Your task to perform on an android device: toggle notification dots Image 0: 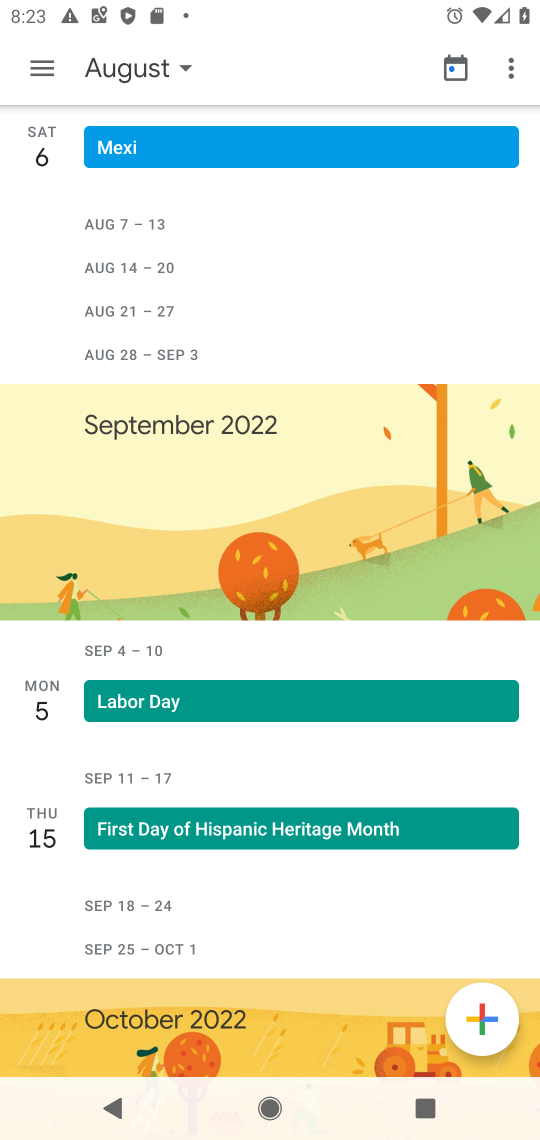
Step 0: press home button
Your task to perform on an android device: toggle notification dots Image 1: 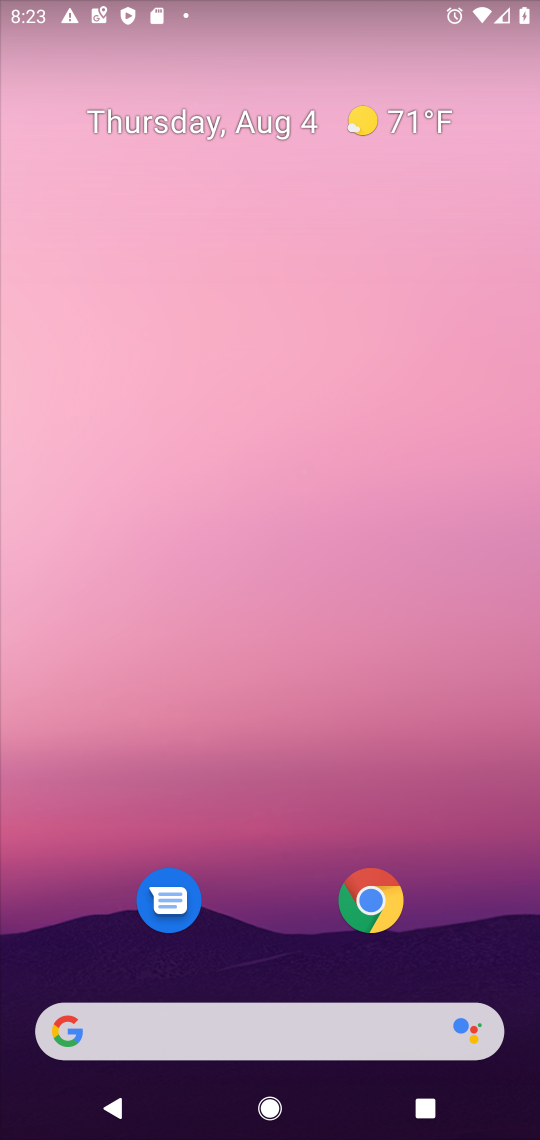
Step 1: drag from (257, 997) to (205, 168)
Your task to perform on an android device: toggle notification dots Image 2: 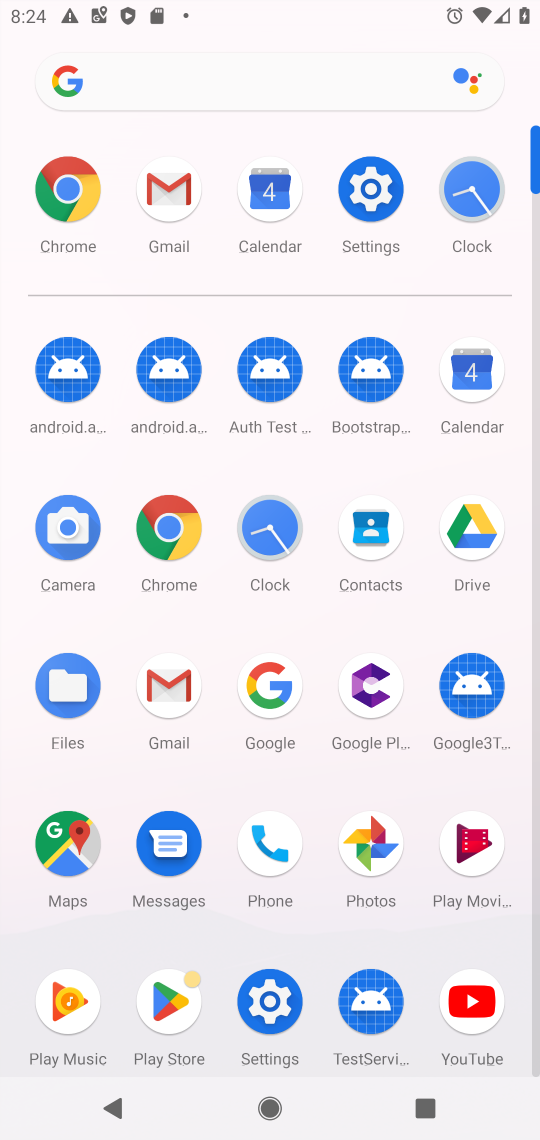
Step 2: click (369, 190)
Your task to perform on an android device: toggle notification dots Image 3: 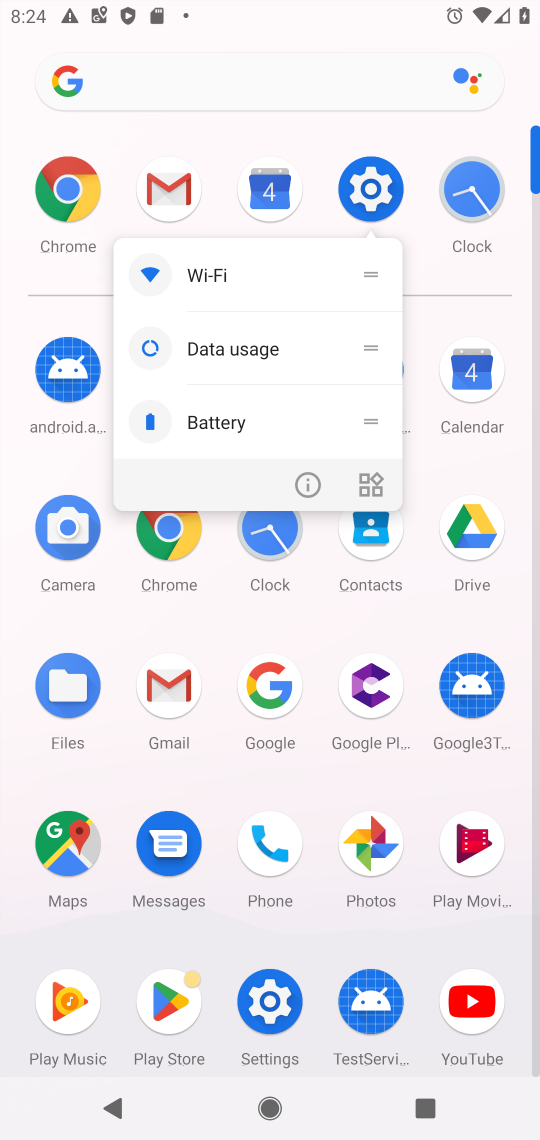
Step 3: click (369, 190)
Your task to perform on an android device: toggle notification dots Image 4: 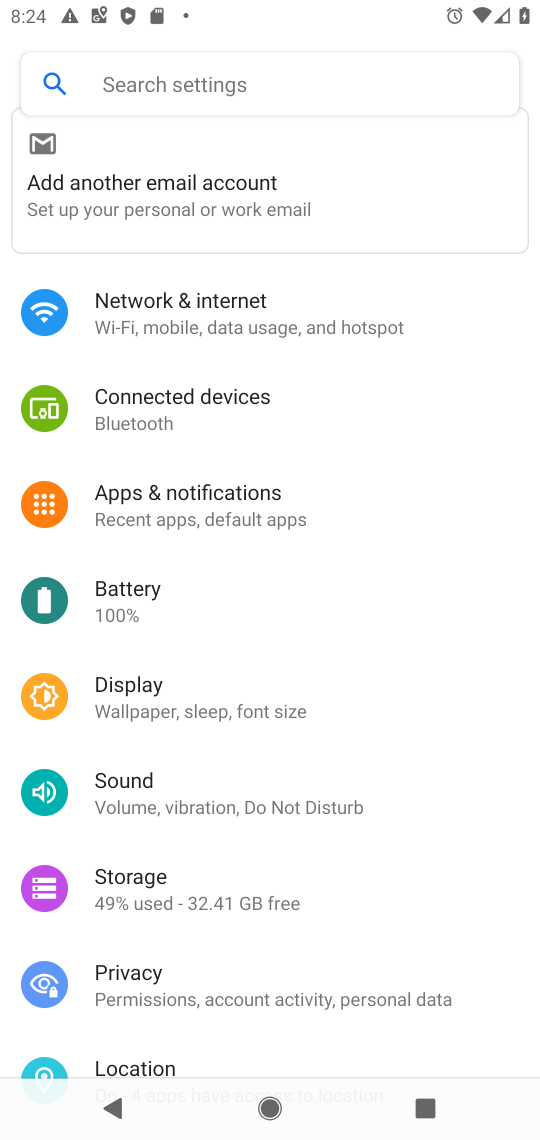
Step 4: click (152, 515)
Your task to perform on an android device: toggle notification dots Image 5: 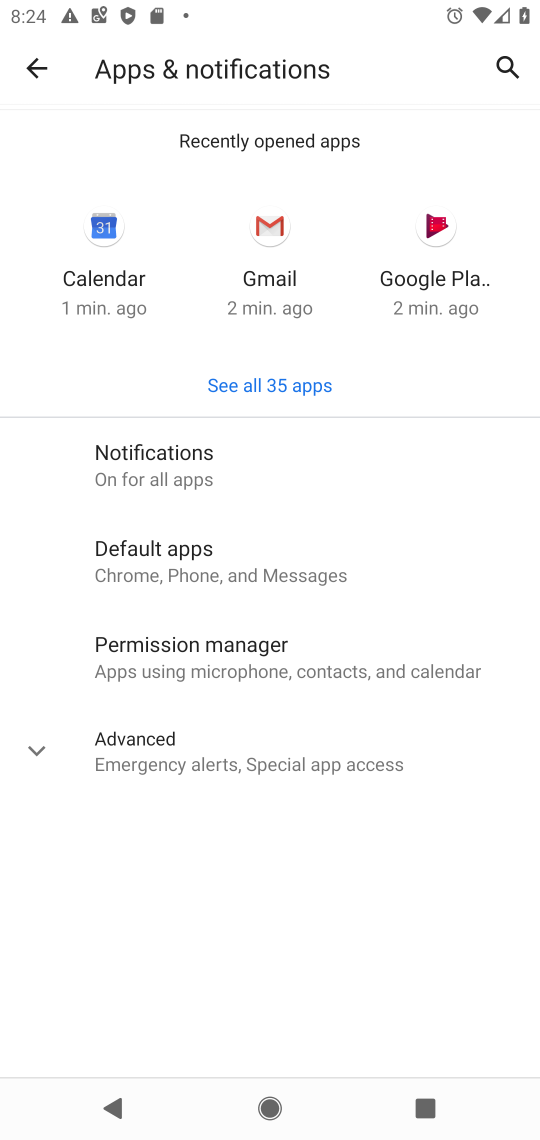
Step 5: click (182, 470)
Your task to perform on an android device: toggle notification dots Image 6: 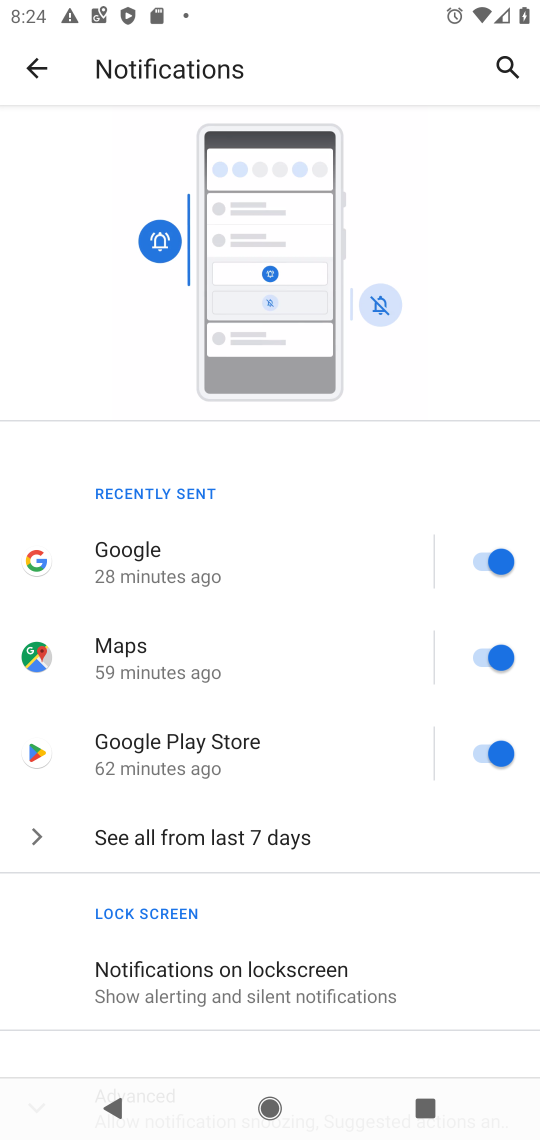
Step 6: drag from (258, 936) to (380, 597)
Your task to perform on an android device: toggle notification dots Image 7: 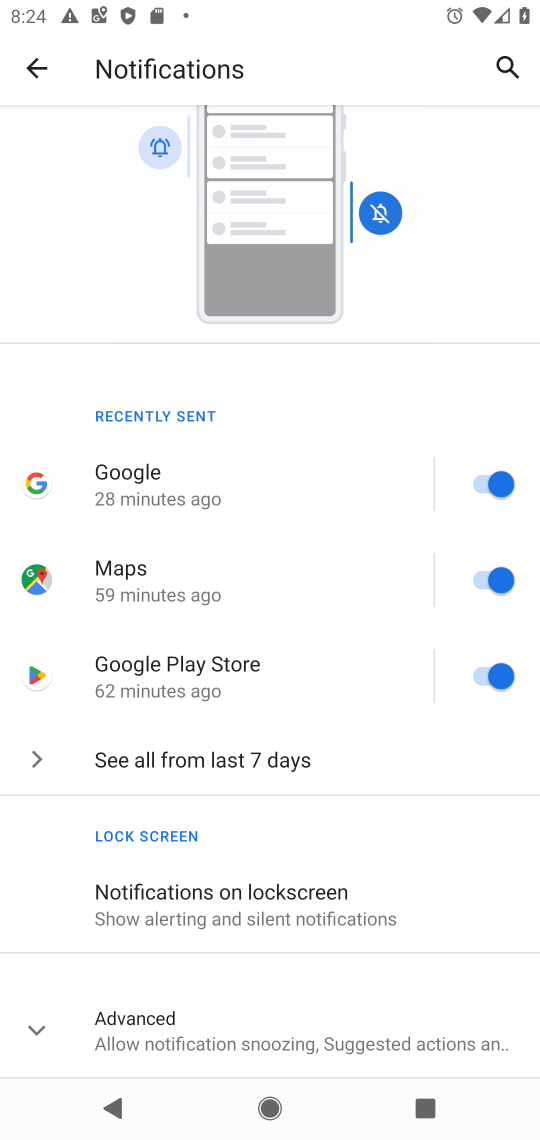
Step 7: click (183, 1043)
Your task to perform on an android device: toggle notification dots Image 8: 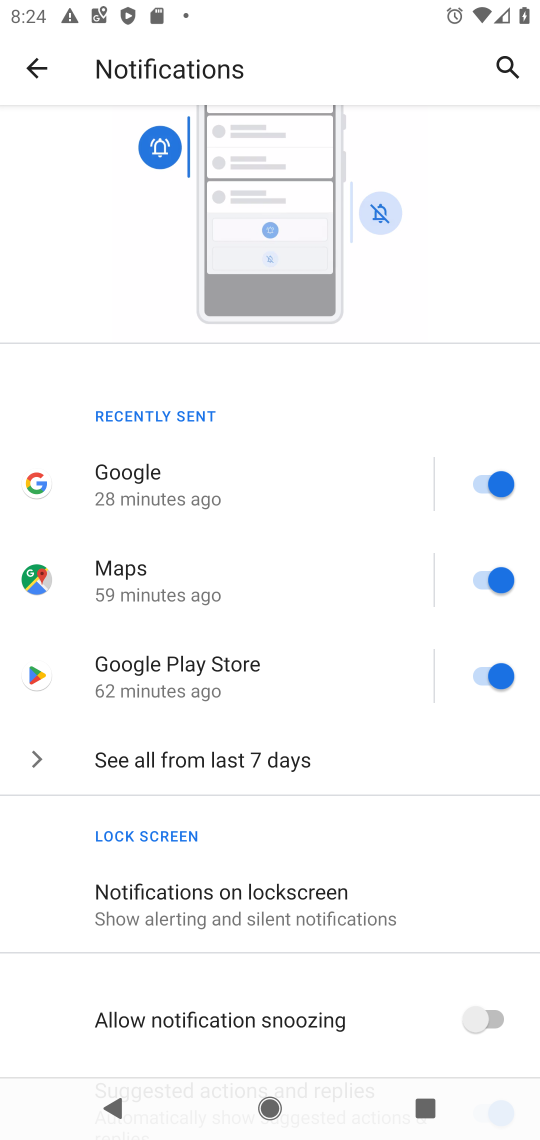
Step 8: drag from (280, 975) to (312, 764)
Your task to perform on an android device: toggle notification dots Image 9: 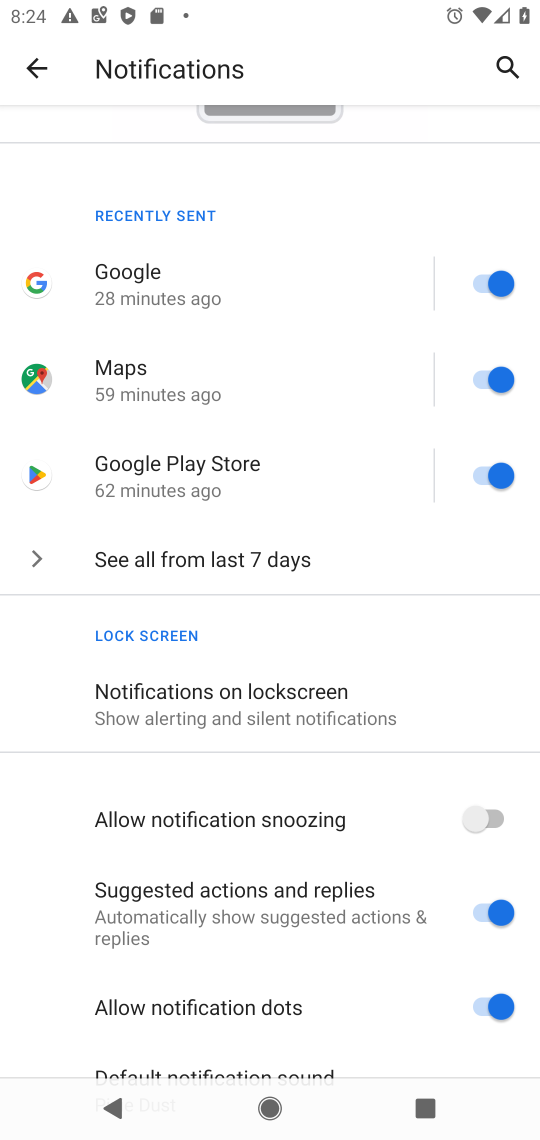
Step 9: click (485, 1016)
Your task to perform on an android device: toggle notification dots Image 10: 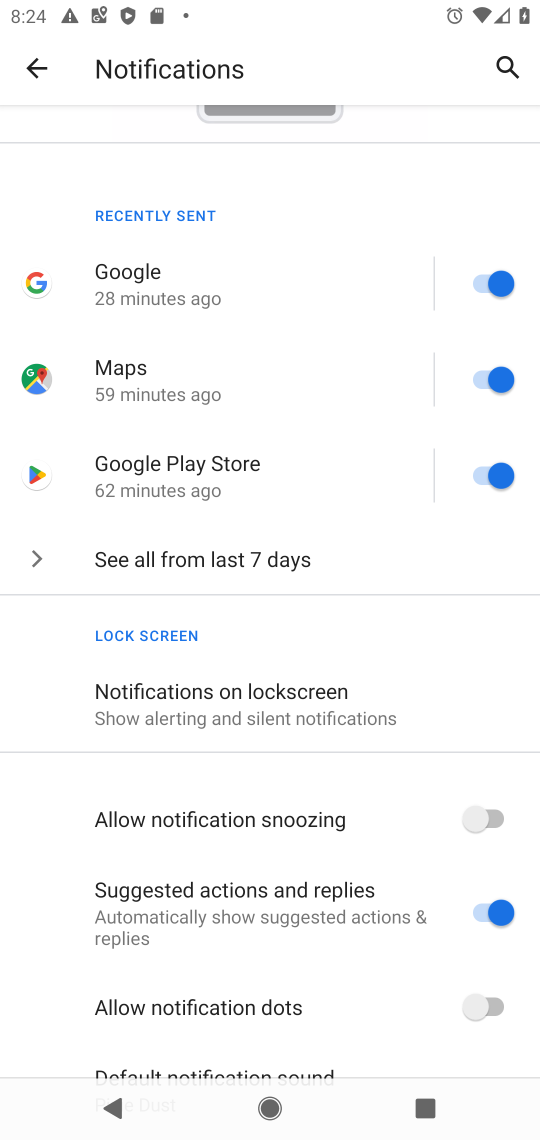
Step 10: task complete